Your task to perform on an android device: turn off location Image 0: 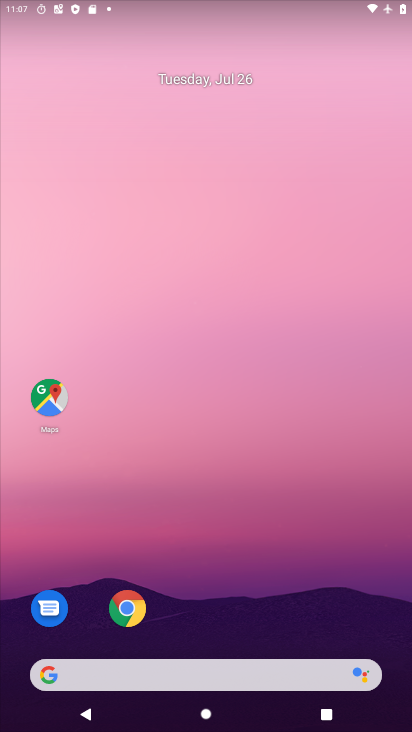
Step 0: drag from (236, 548) to (262, 98)
Your task to perform on an android device: turn off location Image 1: 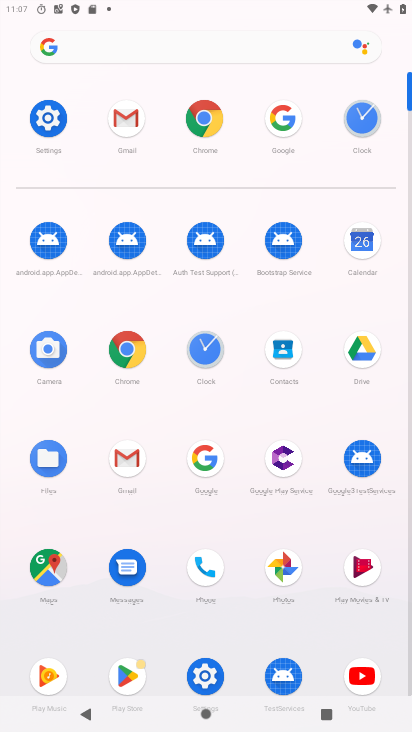
Step 1: click (38, 140)
Your task to perform on an android device: turn off location Image 2: 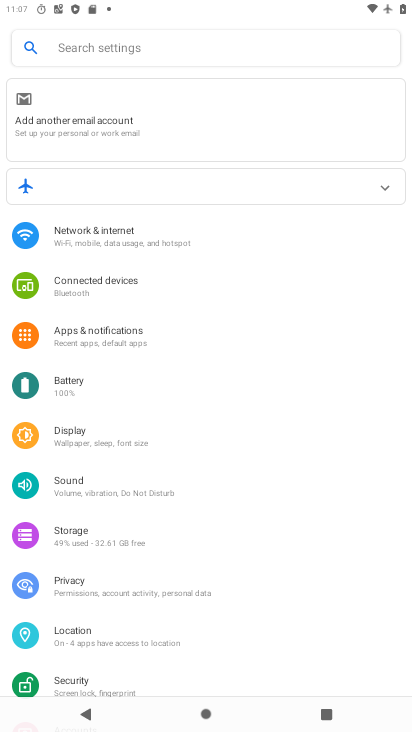
Step 2: click (120, 639)
Your task to perform on an android device: turn off location Image 3: 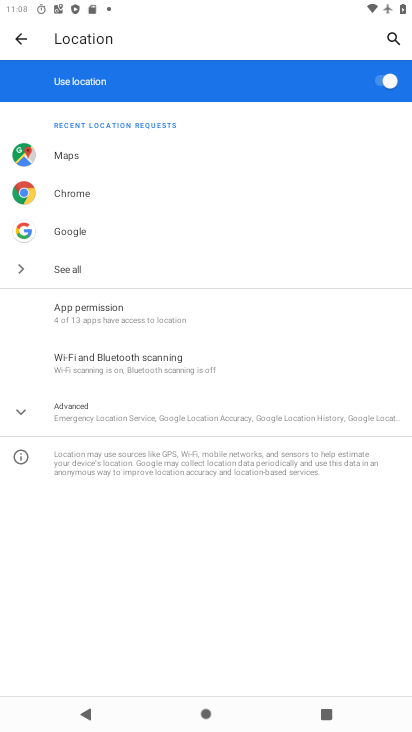
Step 3: click (378, 86)
Your task to perform on an android device: turn off location Image 4: 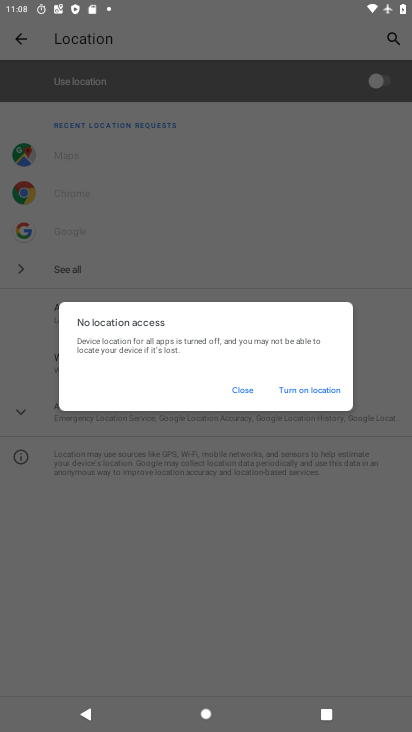
Step 4: task complete